Your task to perform on an android device: Open Yahoo.com Image 0: 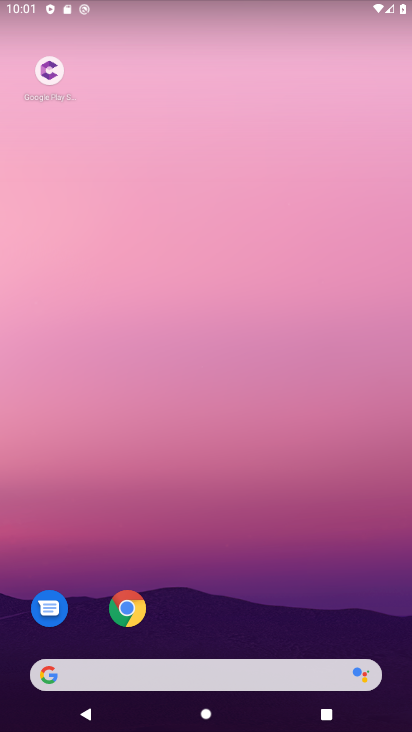
Step 0: click (128, 606)
Your task to perform on an android device: Open Yahoo.com Image 1: 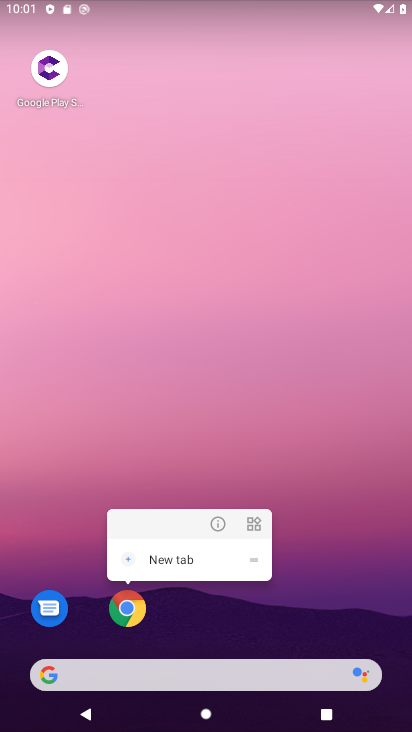
Step 1: click (130, 609)
Your task to perform on an android device: Open Yahoo.com Image 2: 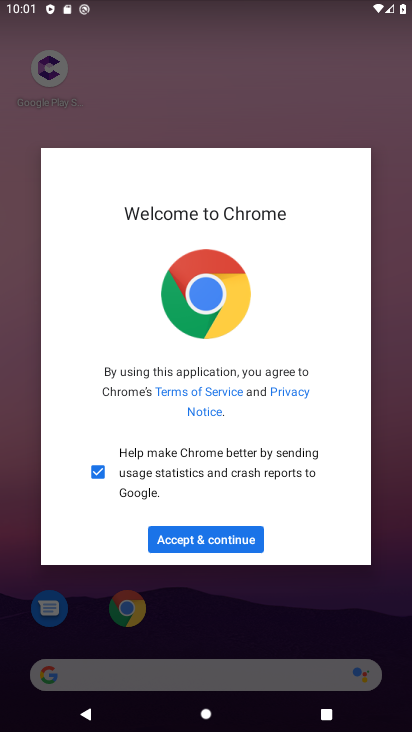
Step 2: click (223, 539)
Your task to perform on an android device: Open Yahoo.com Image 3: 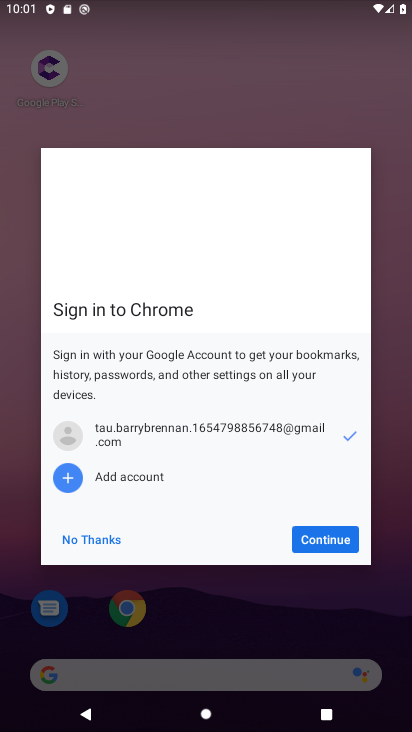
Step 3: click (311, 549)
Your task to perform on an android device: Open Yahoo.com Image 4: 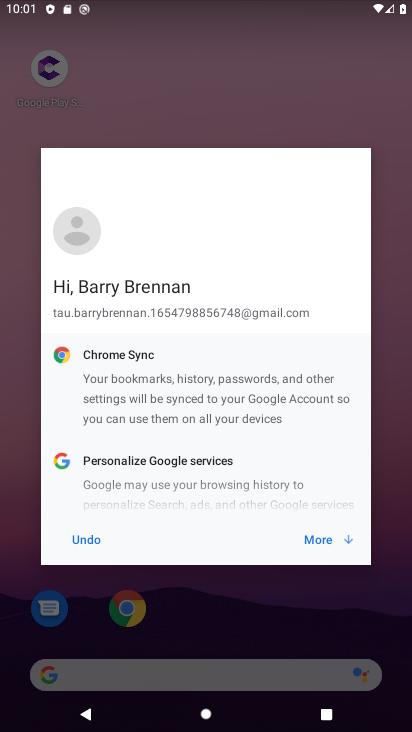
Step 4: click (338, 532)
Your task to perform on an android device: Open Yahoo.com Image 5: 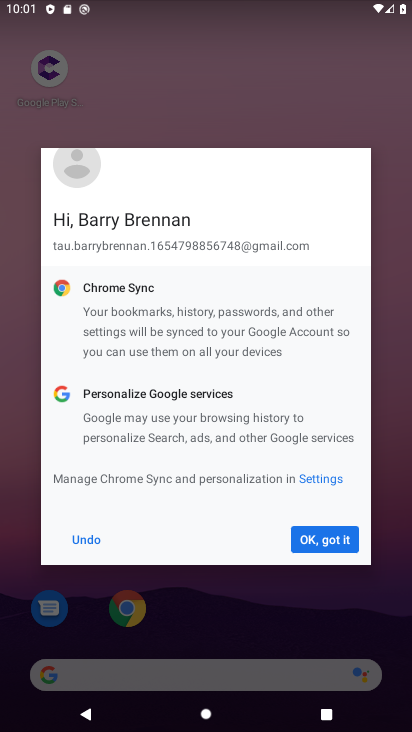
Step 5: click (330, 537)
Your task to perform on an android device: Open Yahoo.com Image 6: 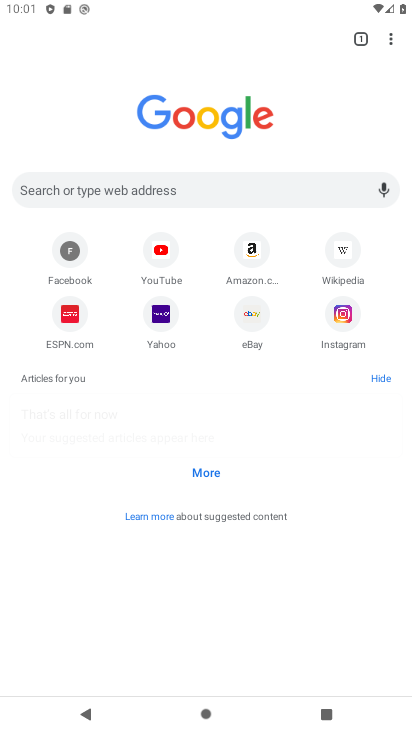
Step 6: click (159, 318)
Your task to perform on an android device: Open Yahoo.com Image 7: 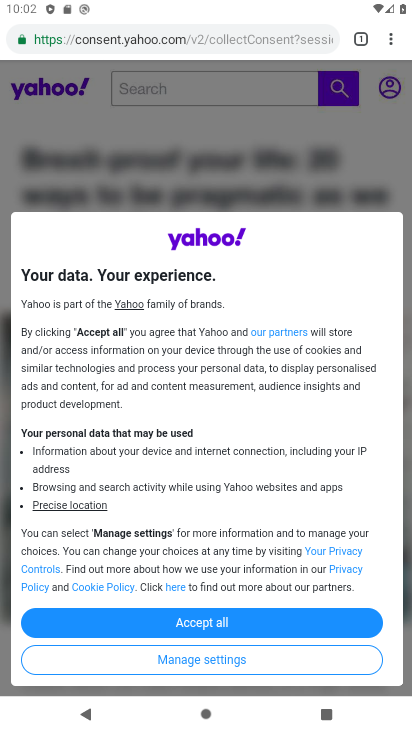
Step 7: task complete